Your task to perform on an android device: turn on the 24-hour format for clock Image 0: 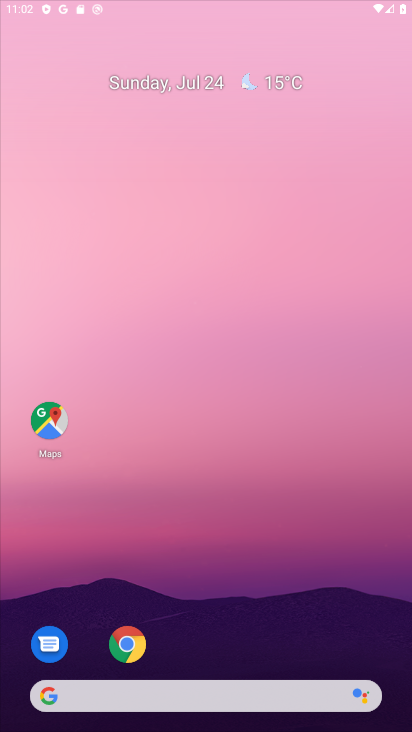
Step 0: click (183, 107)
Your task to perform on an android device: turn on the 24-hour format for clock Image 1: 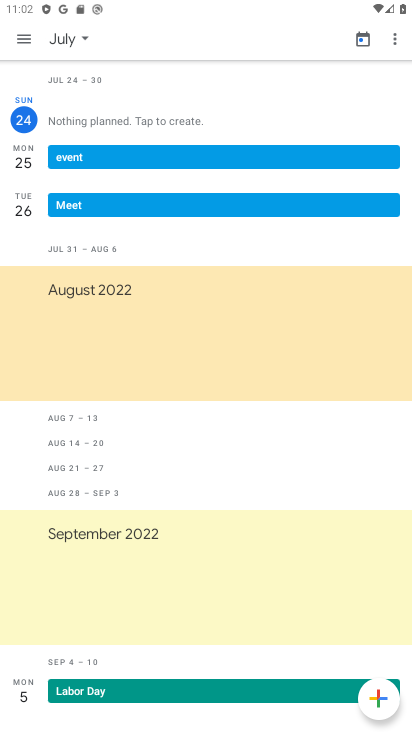
Step 1: press home button
Your task to perform on an android device: turn on the 24-hour format for clock Image 2: 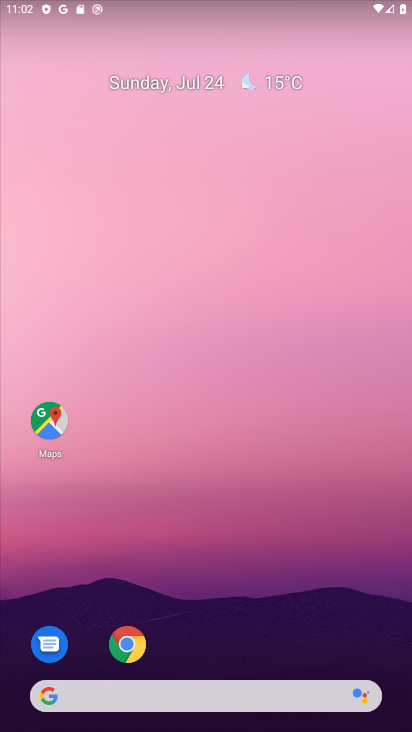
Step 2: drag from (221, 731) to (237, 124)
Your task to perform on an android device: turn on the 24-hour format for clock Image 3: 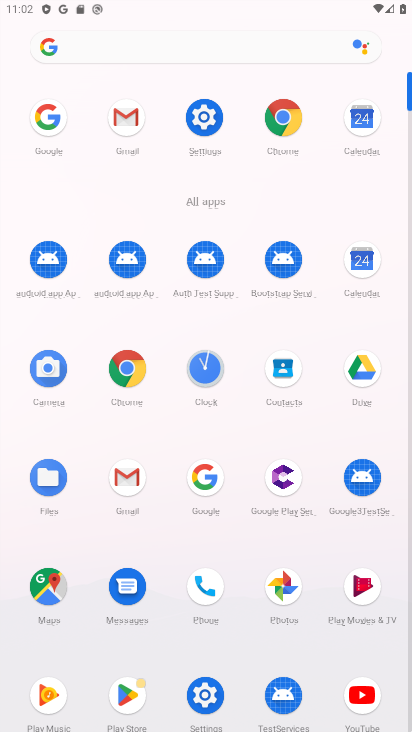
Step 3: click (203, 370)
Your task to perform on an android device: turn on the 24-hour format for clock Image 4: 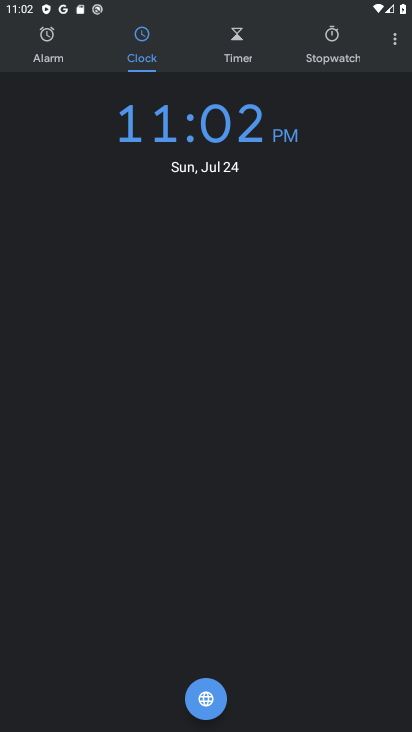
Step 4: click (394, 43)
Your task to perform on an android device: turn on the 24-hour format for clock Image 5: 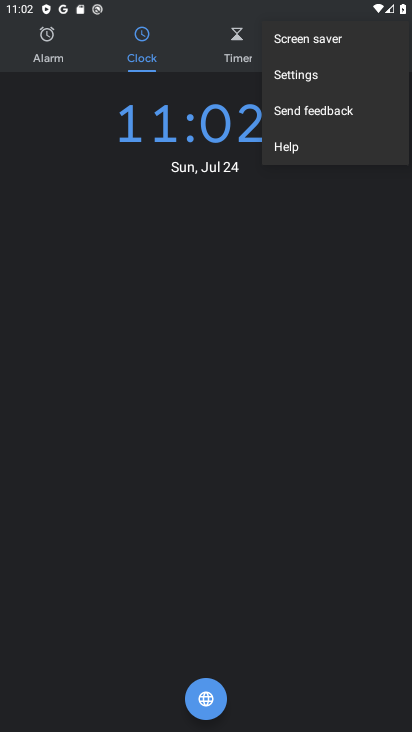
Step 5: click (289, 78)
Your task to perform on an android device: turn on the 24-hour format for clock Image 6: 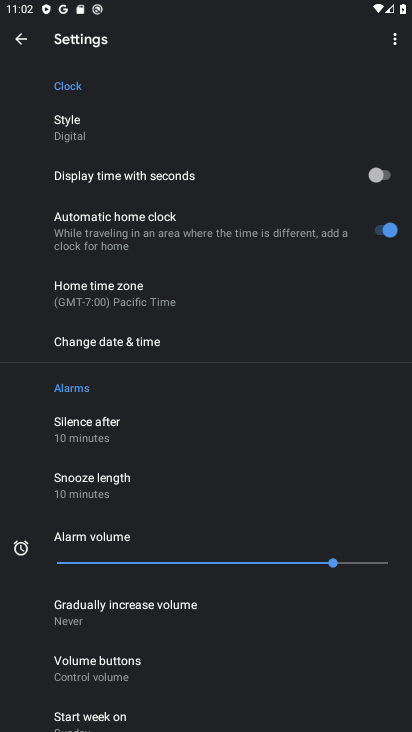
Step 6: click (125, 341)
Your task to perform on an android device: turn on the 24-hour format for clock Image 7: 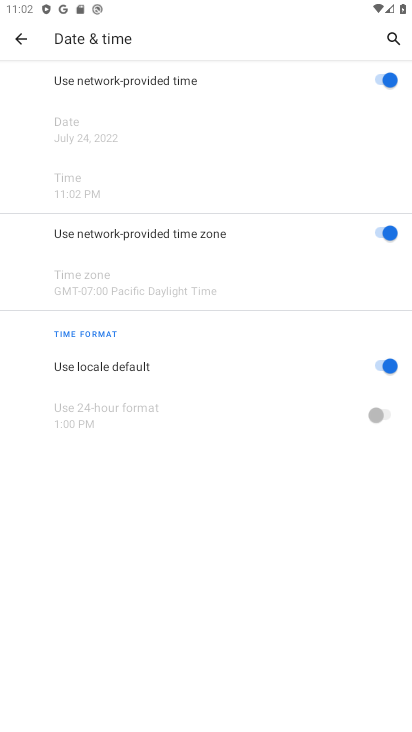
Step 7: click (380, 366)
Your task to perform on an android device: turn on the 24-hour format for clock Image 8: 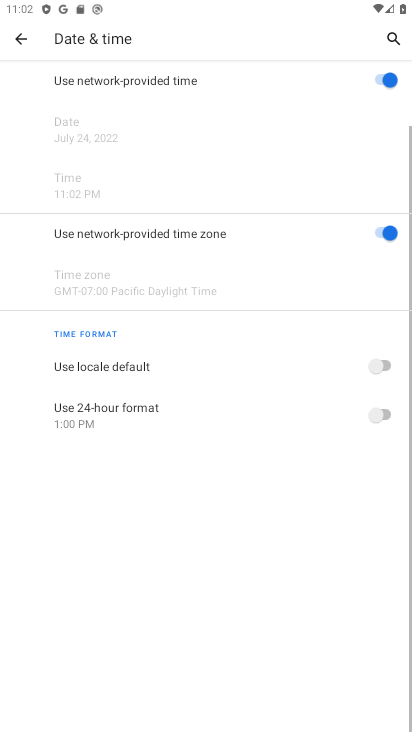
Step 8: click (387, 414)
Your task to perform on an android device: turn on the 24-hour format for clock Image 9: 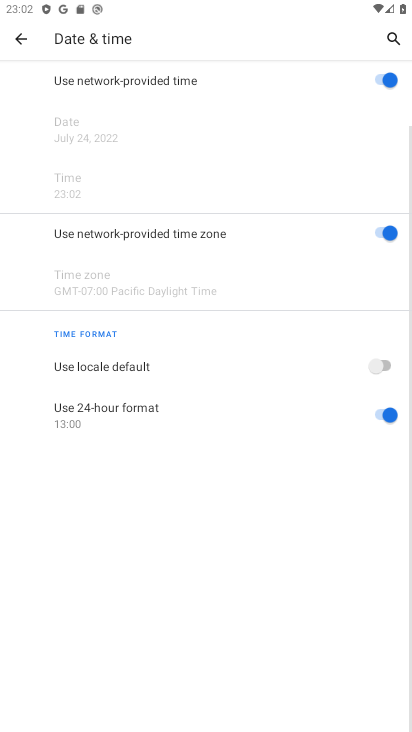
Step 9: task complete